Your task to perform on an android device: turn on the 24-hour format for clock Image 0: 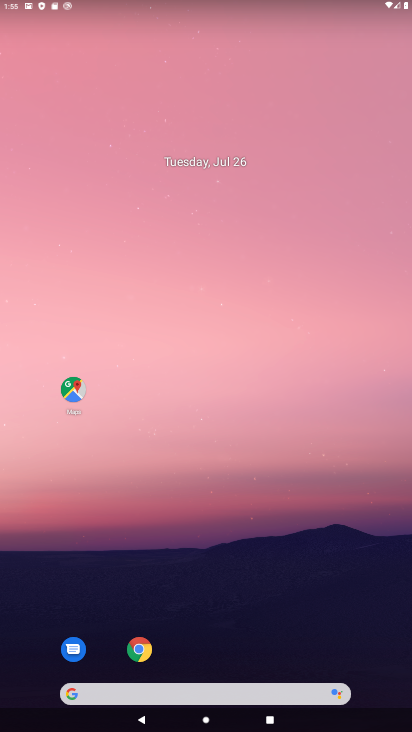
Step 0: drag from (166, 696) to (253, 58)
Your task to perform on an android device: turn on the 24-hour format for clock Image 1: 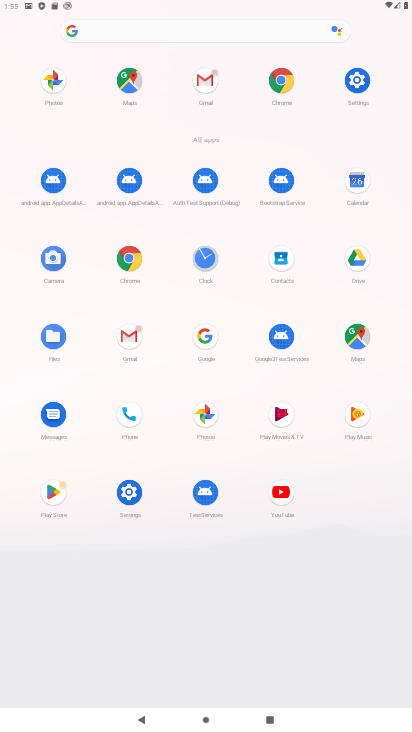
Step 1: click (204, 257)
Your task to perform on an android device: turn on the 24-hour format for clock Image 2: 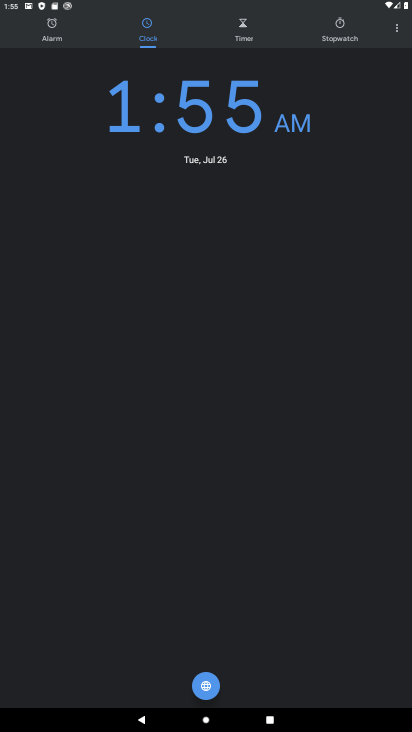
Step 2: click (398, 32)
Your task to perform on an android device: turn on the 24-hour format for clock Image 3: 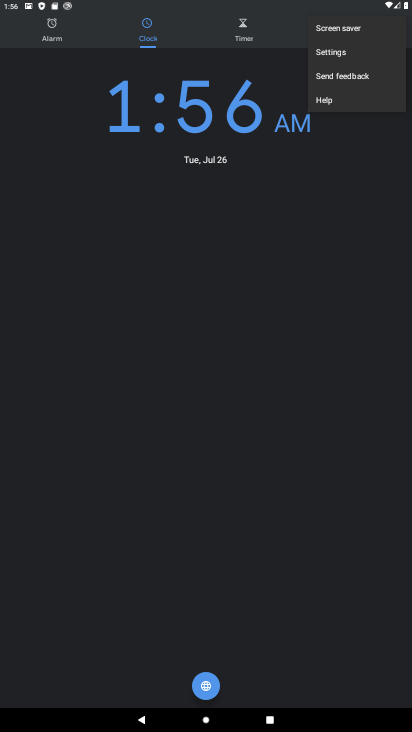
Step 3: click (341, 56)
Your task to perform on an android device: turn on the 24-hour format for clock Image 4: 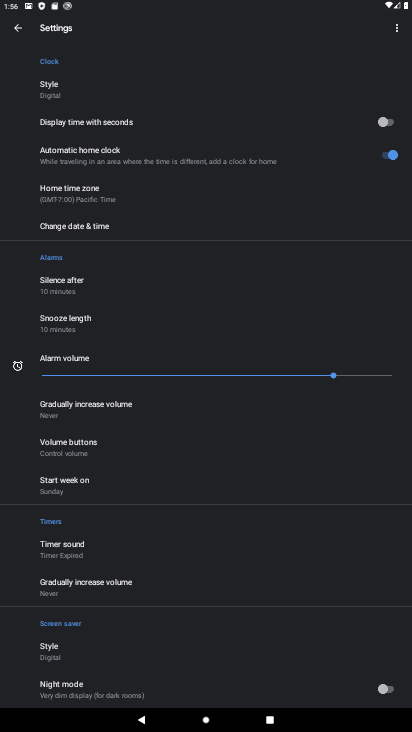
Step 4: click (64, 225)
Your task to perform on an android device: turn on the 24-hour format for clock Image 5: 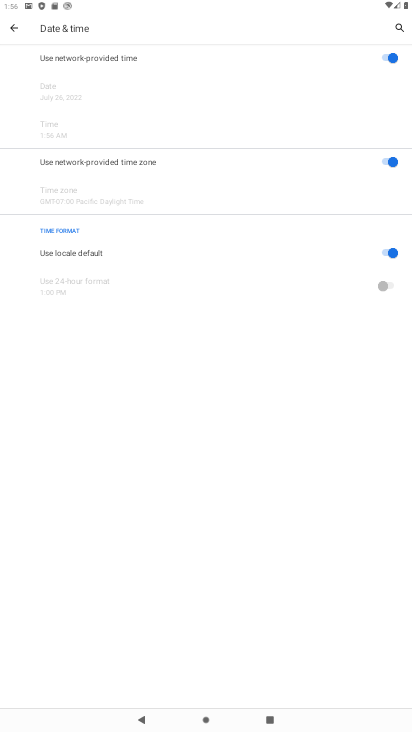
Step 5: click (391, 257)
Your task to perform on an android device: turn on the 24-hour format for clock Image 6: 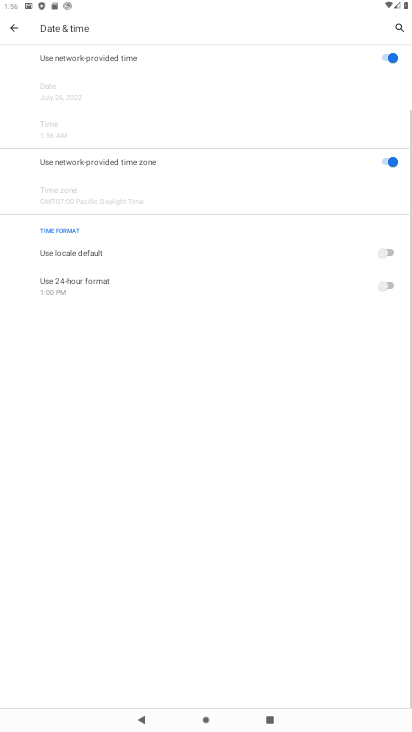
Step 6: click (385, 290)
Your task to perform on an android device: turn on the 24-hour format for clock Image 7: 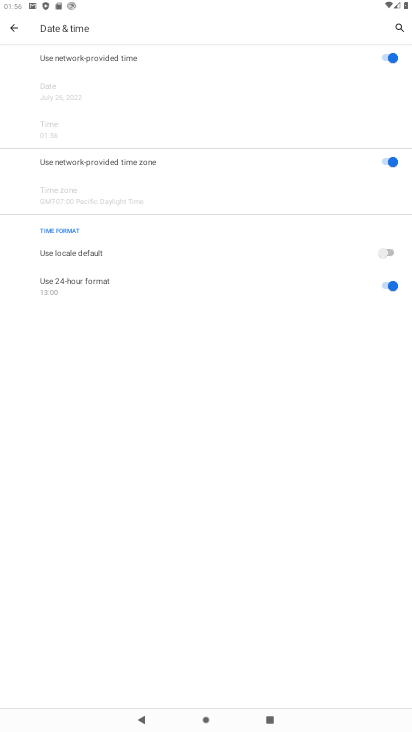
Step 7: task complete